Your task to perform on an android device: Is it going to rain today? Image 0: 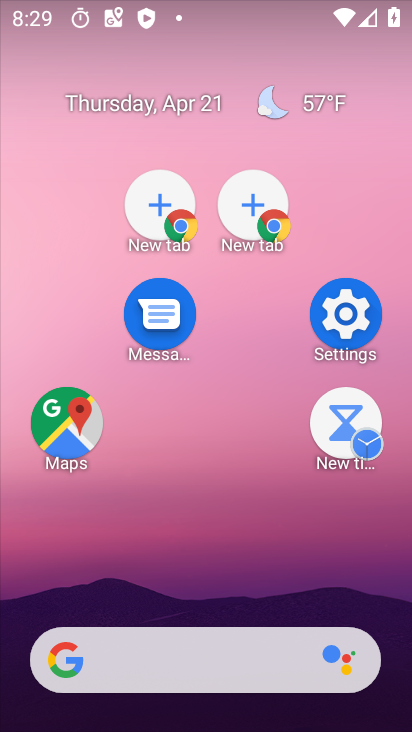
Step 0: drag from (199, 538) to (160, 207)
Your task to perform on an android device: Is it going to rain today? Image 1: 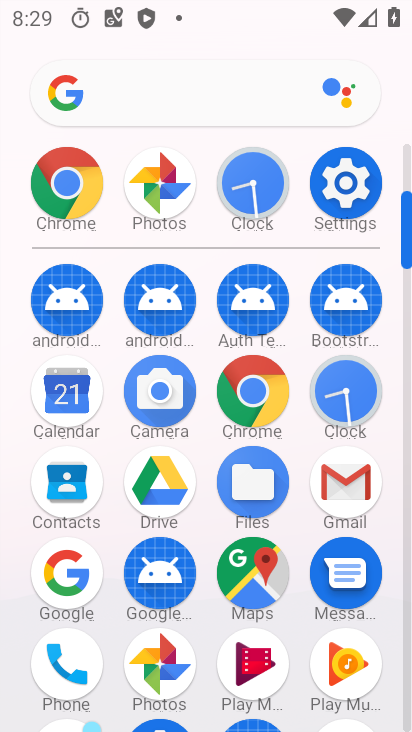
Step 1: press home button
Your task to perform on an android device: Is it going to rain today? Image 2: 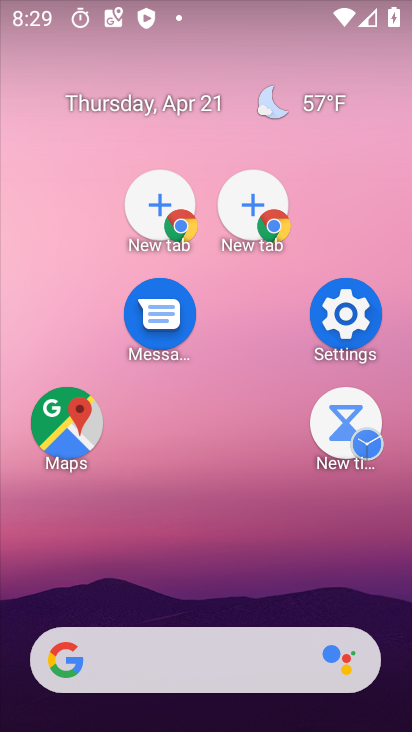
Step 2: drag from (0, 263) to (398, 334)
Your task to perform on an android device: Is it going to rain today? Image 3: 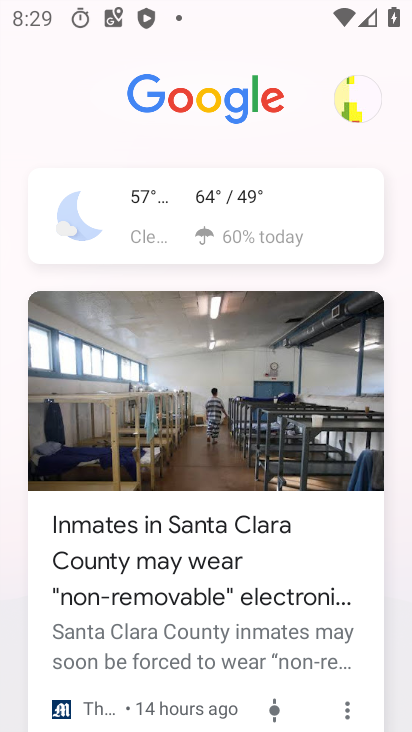
Step 3: click (209, 217)
Your task to perform on an android device: Is it going to rain today? Image 4: 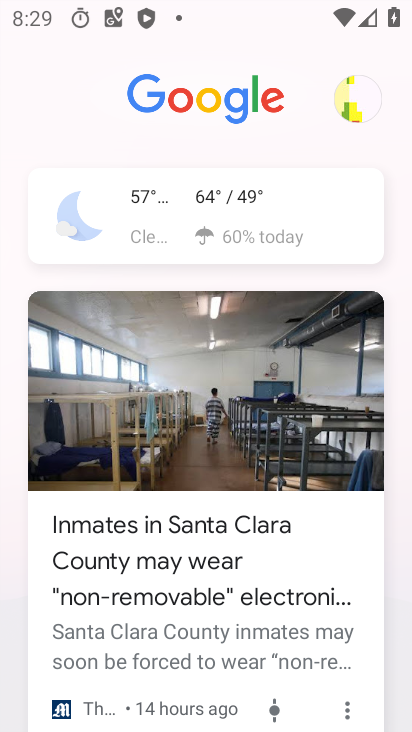
Step 4: click (210, 218)
Your task to perform on an android device: Is it going to rain today? Image 5: 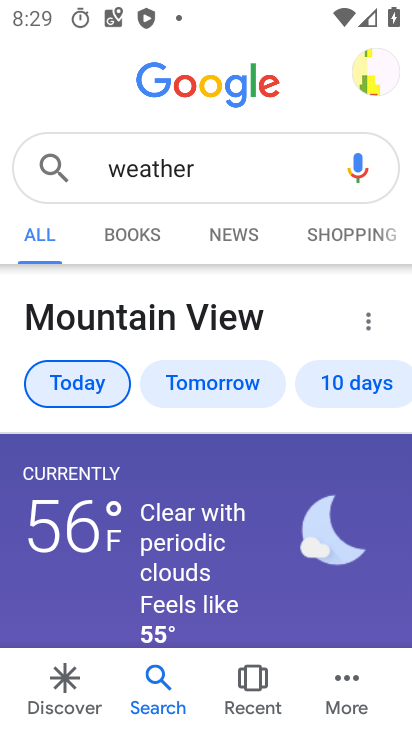
Step 5: task complete